Your task to perform on an android device: Open Google Chrome and click the shortcut for Amazon.com Image 0: 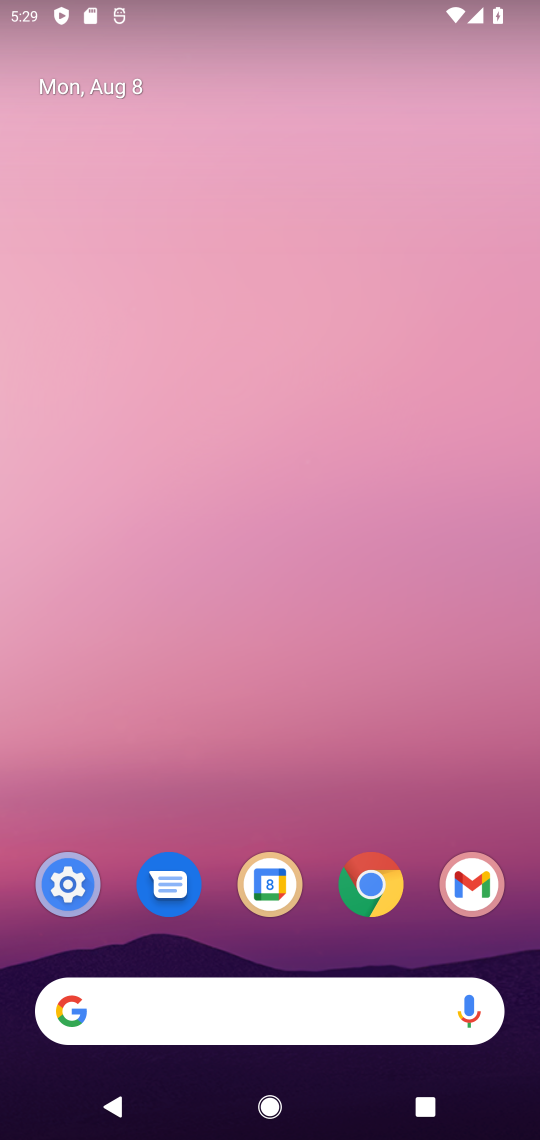
Step 0: click (396, 892)
Your task to perform on an android device: Open Google Chrome and click the shortcut for Amazon.com Image 1: 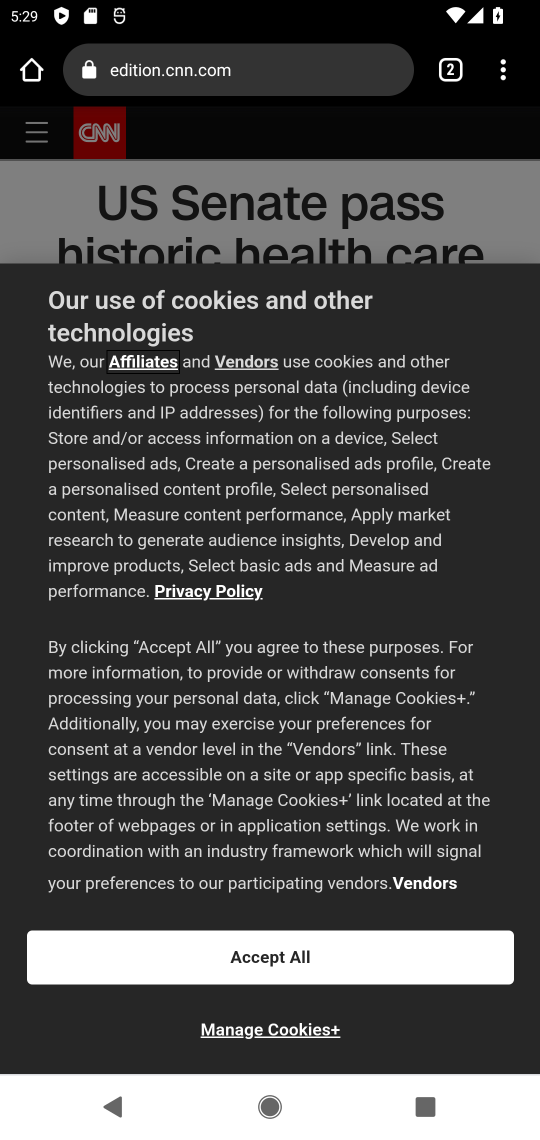
Step 1: click (447, 60)
Your task to perform on an android device: Open Google Chrome and click the shortcut for Amazon.com Image 2: 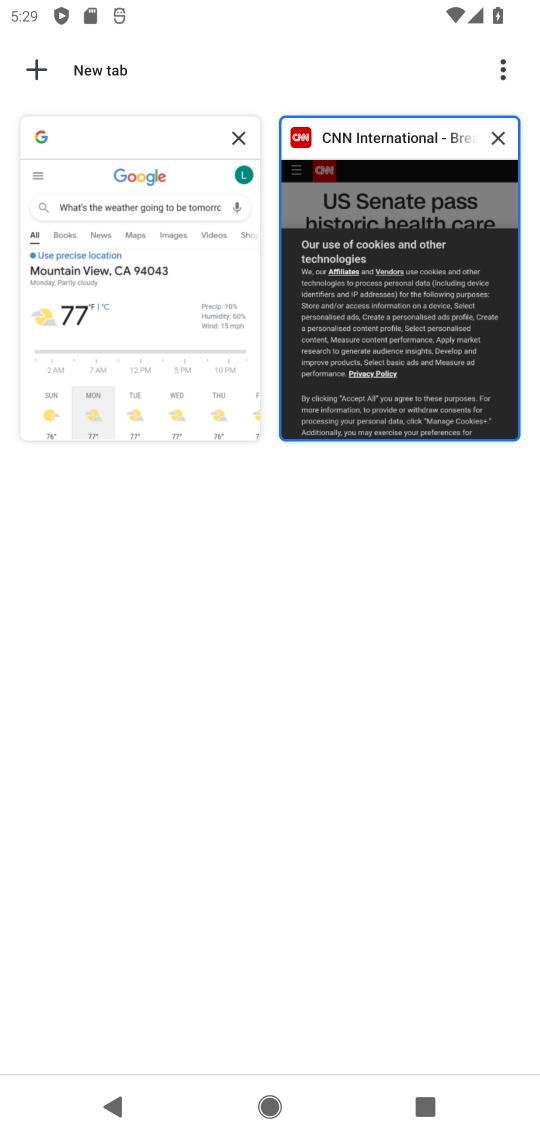
Step 2: click (99, 92)
Your task to perform on an android device: Open Google Chrome and click the shortcut for Amazon.com Image 3: 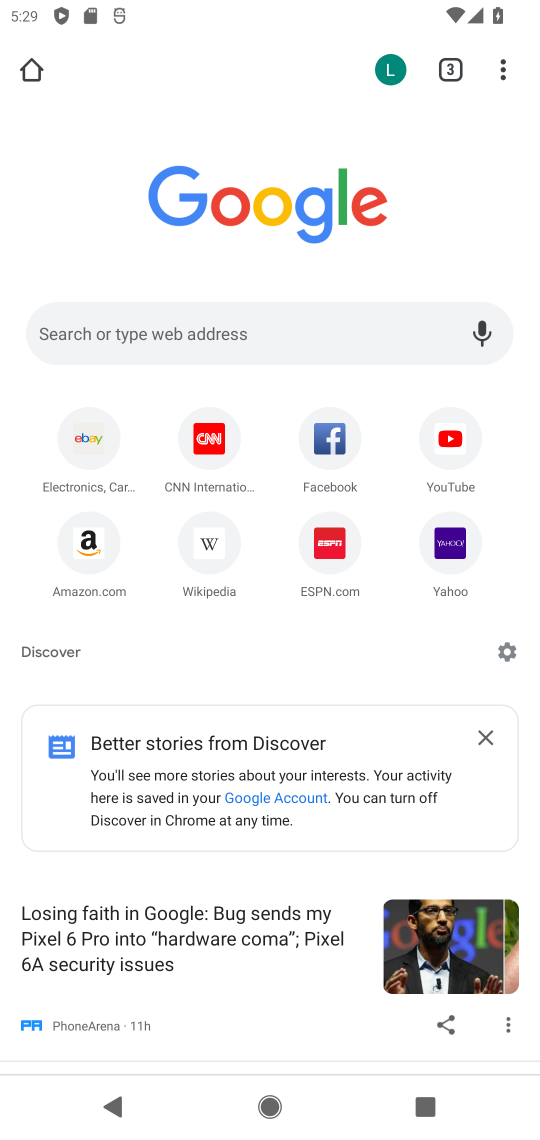
Step 3: click (103, 556)
Your task to perform on an android device: Open Google Chrome and click the shortcut for Amazon.com Image 4: 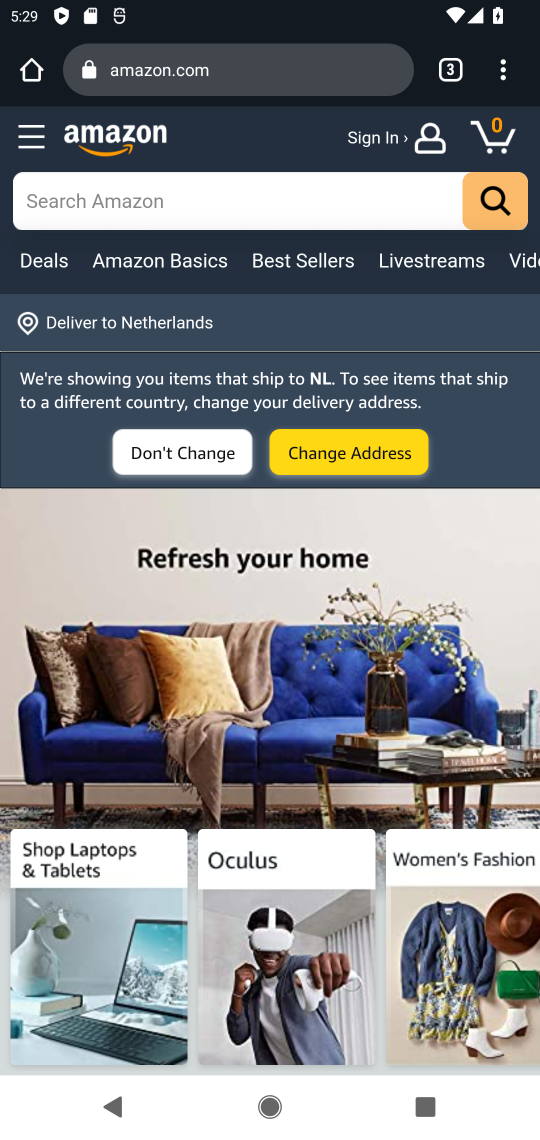
Step 4: task complete